Your task to perform on an android device: change notifications settings Image 0: 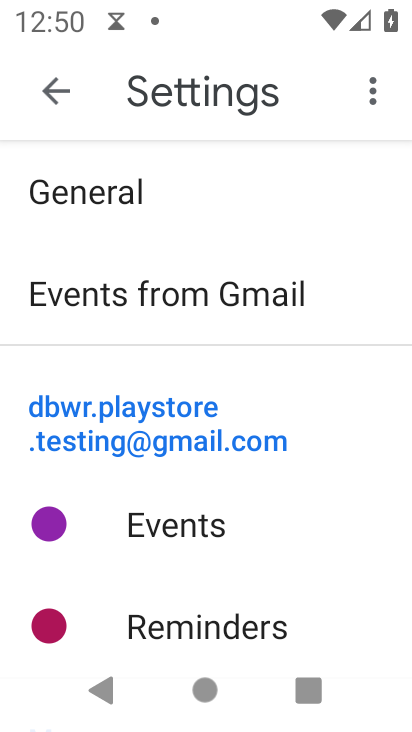
Step 0: press back button
Your task to perform on an android device: change notifications settings Image 1: 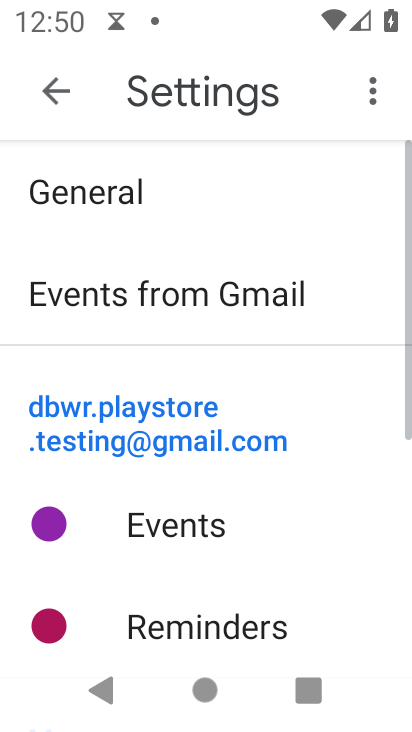
Step 1: press back button
Your task to perform on an android device: change notifications settings Image 2: 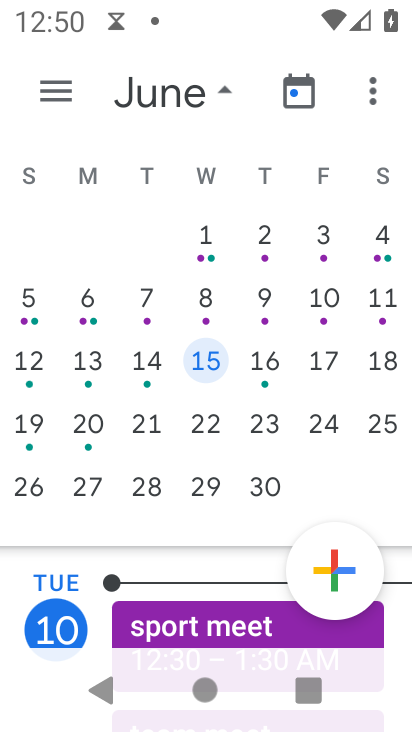
Step 2: press home button
Your task to perform on an android device: change notifications settings Image 3: 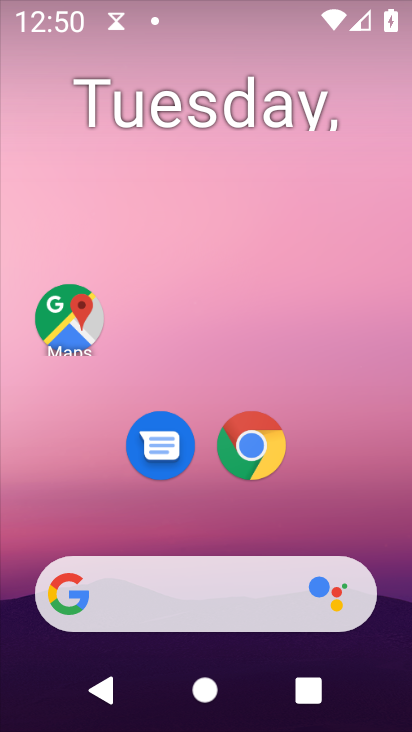
Step 3: drag from (243, 601) to (225, 48)
Your task to perform on an android device: change notifications settings Image 4: 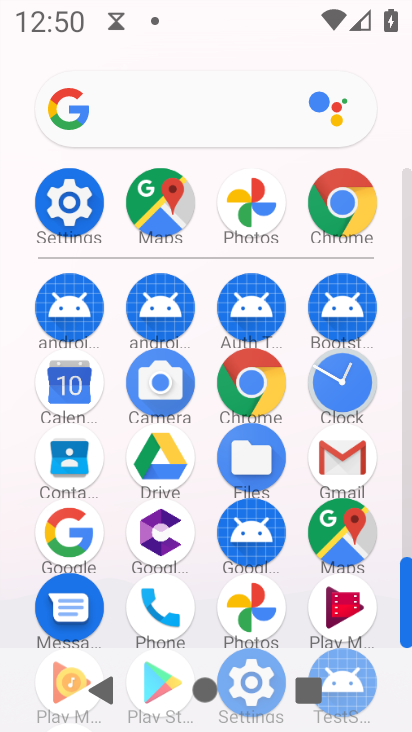
Step 4: click (64, 213)
Your task to perform on an android device: change notifications settings Image 5: 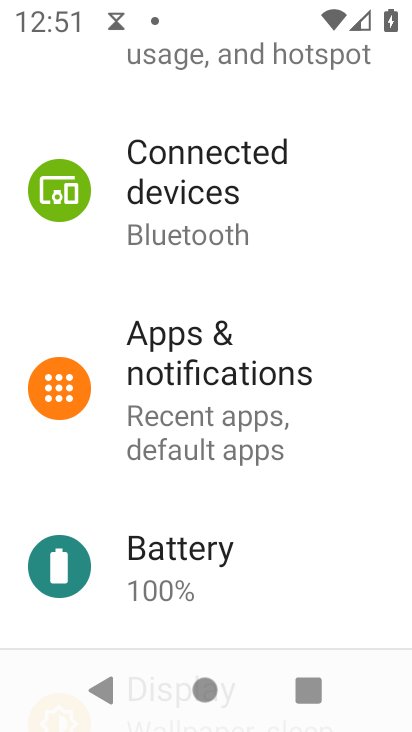
Step 5: click (304, 410)
Your task to perform on an android device: change notifications settings Image 6: 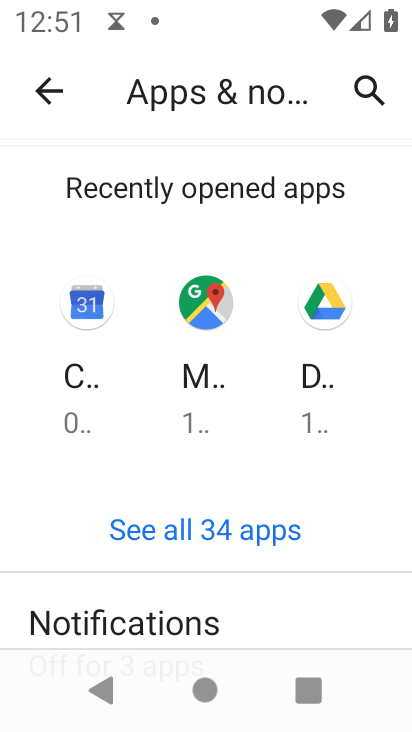
Step 6: task complete